Your task to perform on an android device: Do I have any events today? Image 0: 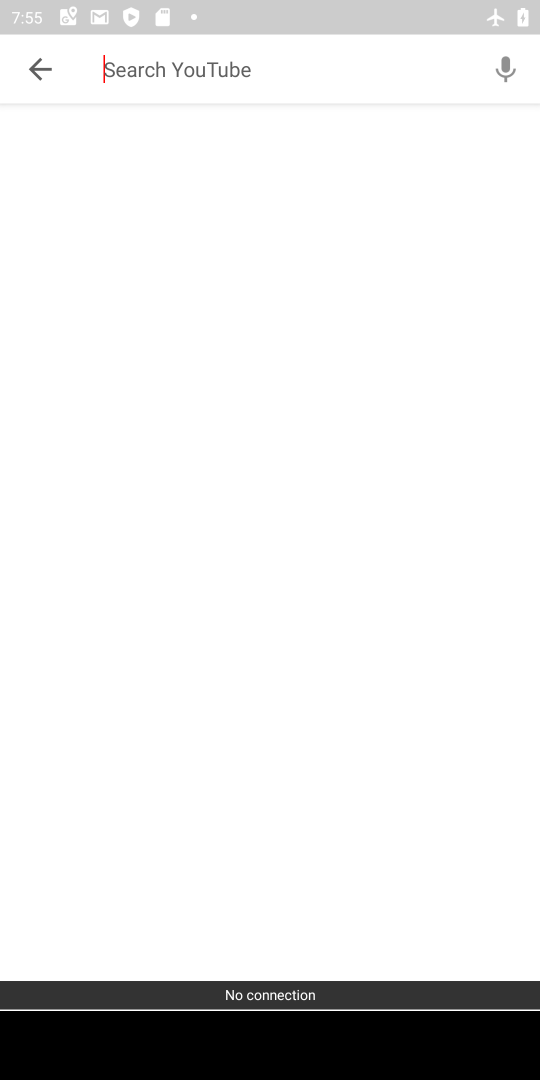
Step 0: press home button
Your task to perform on an android device: Do I have any events today? Image 1: 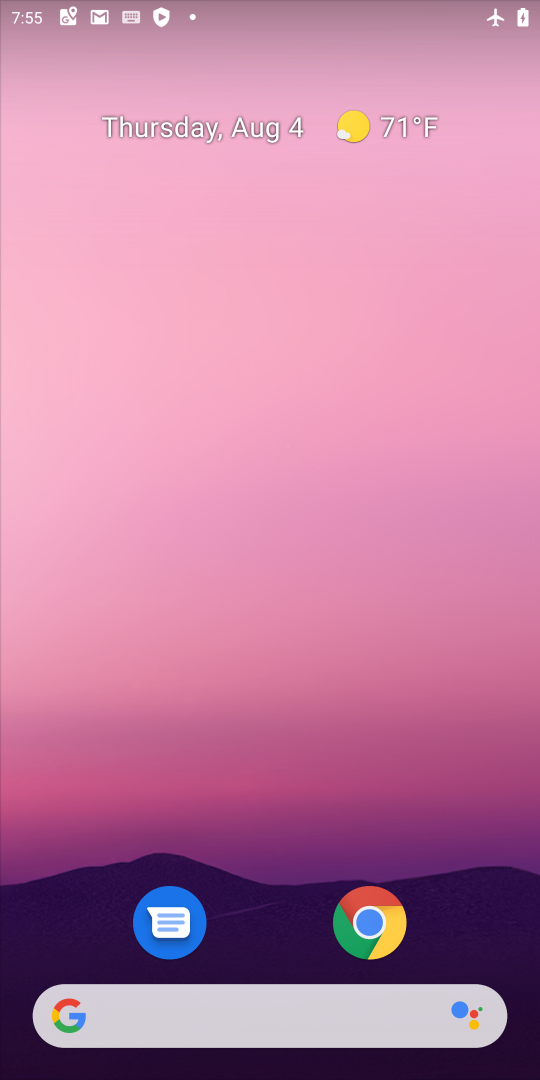
Step 1: drag from (485, 917) to (429, 34)
Your task to perform on an android device: Do I have any events today? Image 2: 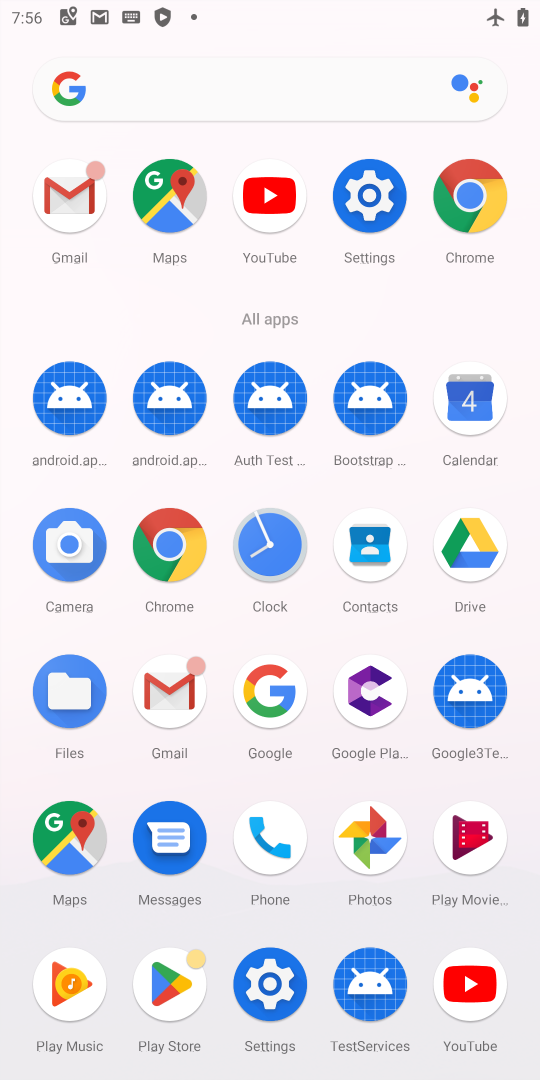
Step 2: click (472, 410)
Your task to perform on an android device: Do I have any events today? Image 3: 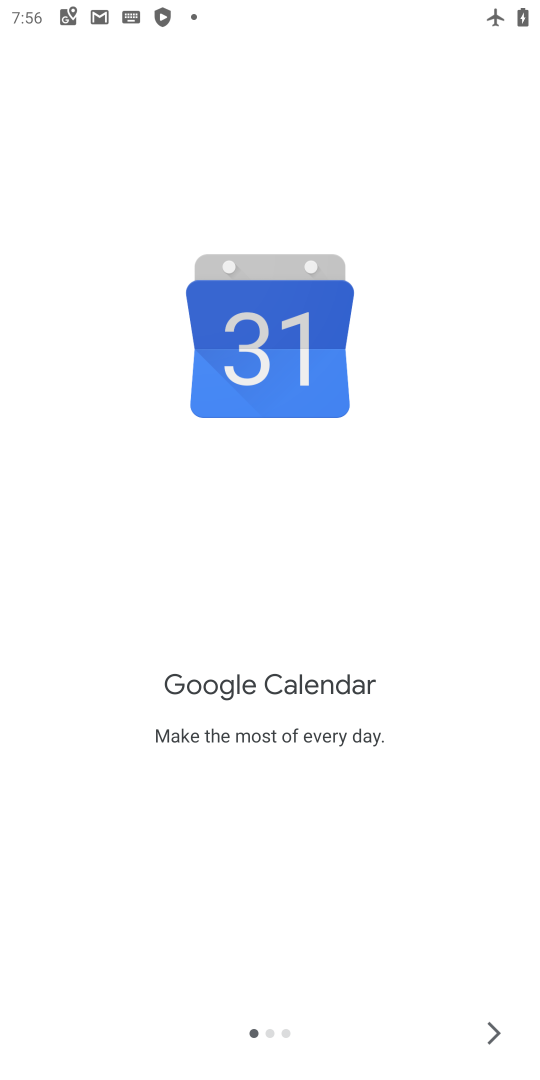
Step 3: click (493, 1020)
Your task to perform on an android device: Do I have any events today? Image 4: 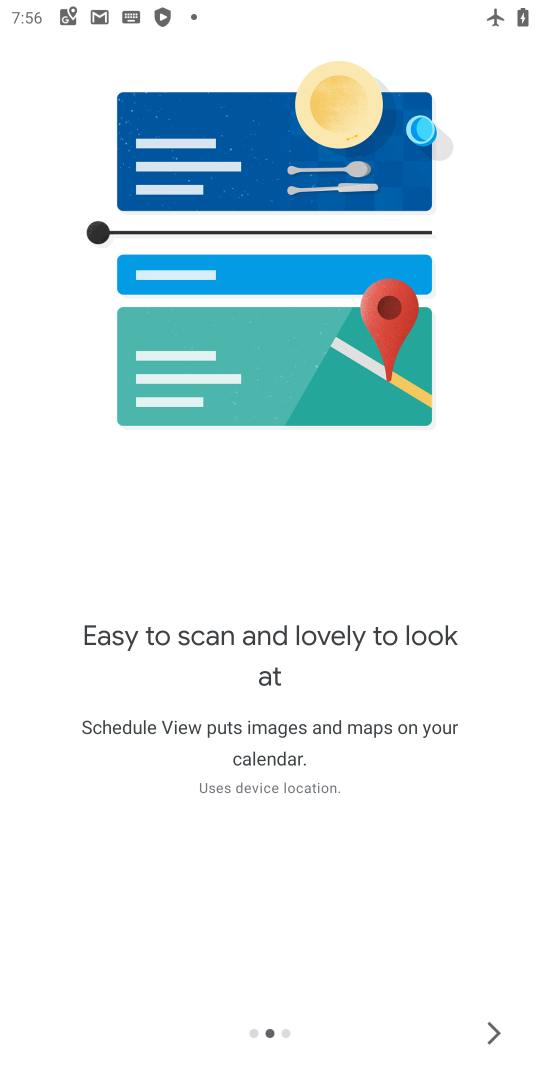
Step 4: click (493, 1020)
Your task to perform on an android device: Do I have any events today? Image 5: 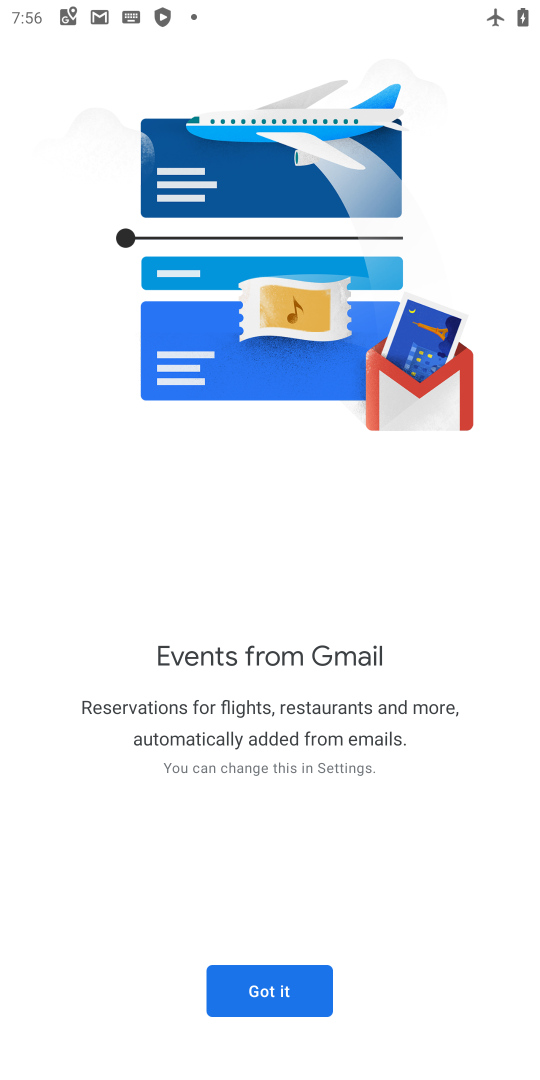
Step 5: click (290, 983)
Your task to perform on an android device: Do I have any events today? Image 6: 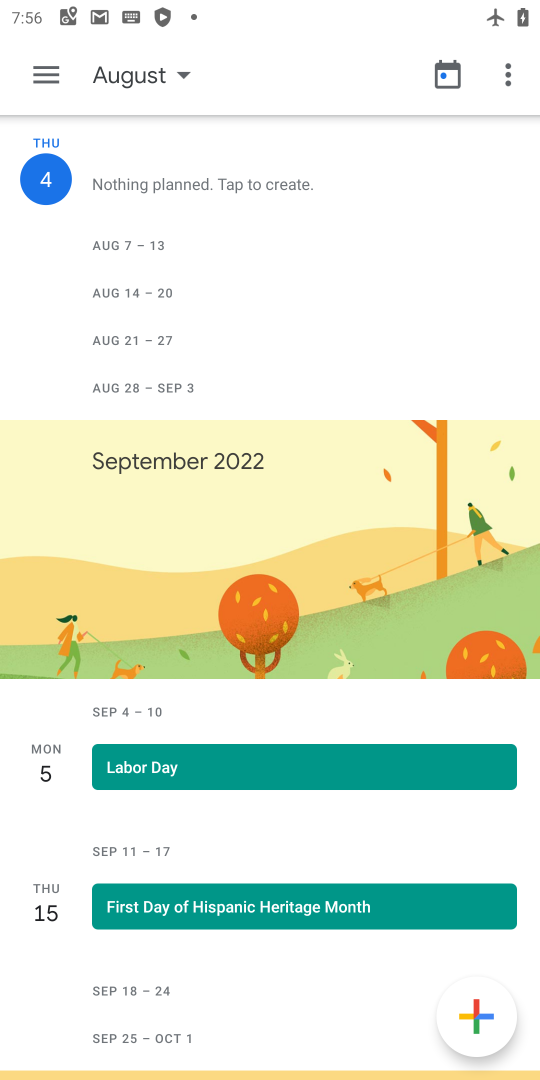
Step 6: drag from (427, 859) to (387, 384)
Your task to perform on an android device: Do I have any events today? Image 7: 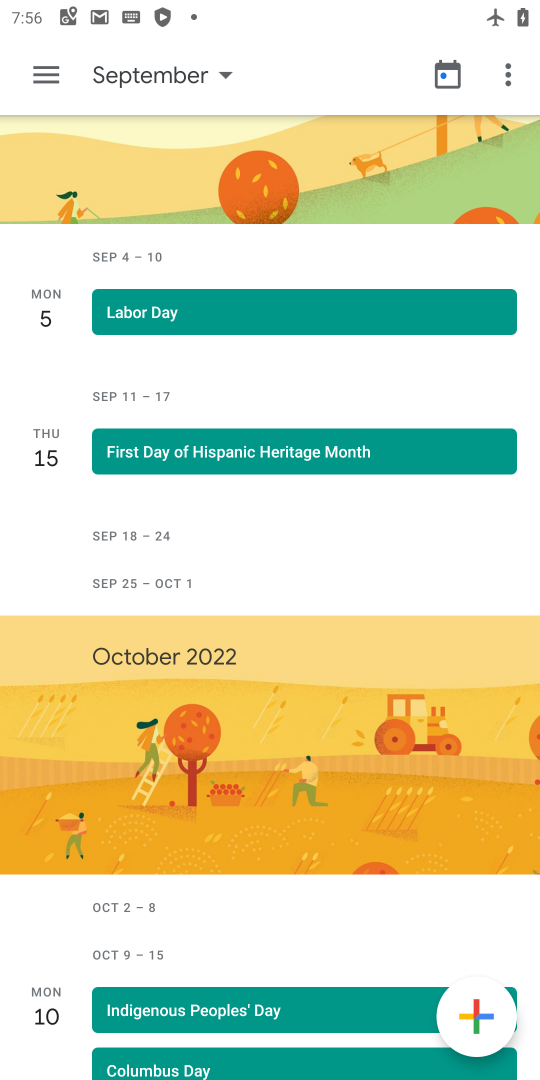
Step 7: drag from (389, 869) to (372, 675)
Your task to perform on an android device: Do I have any events today? Image 8: 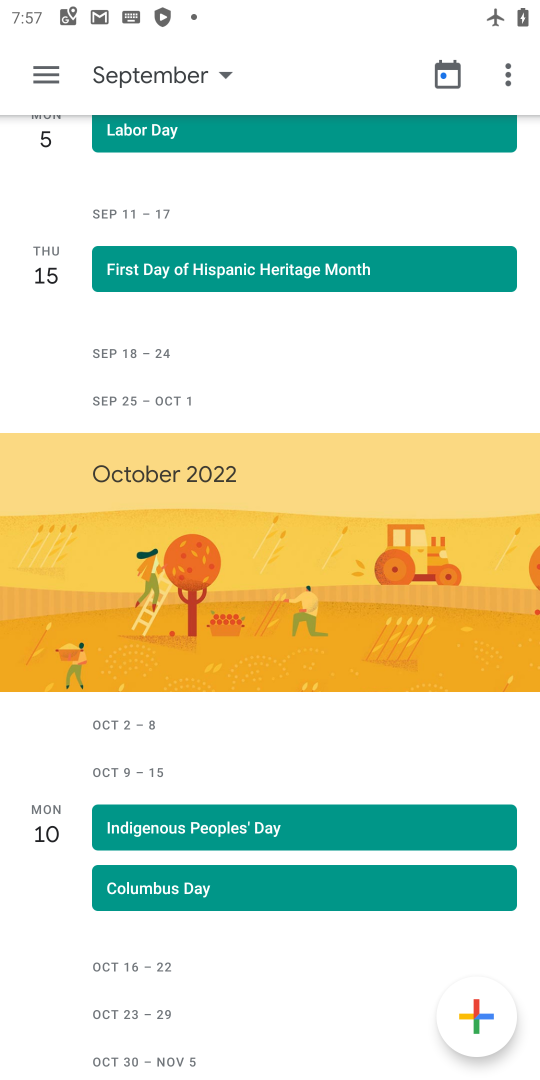
Step 8: click (56, 83)
Your task to perform on an android device: Do I have any events today? Image 9: 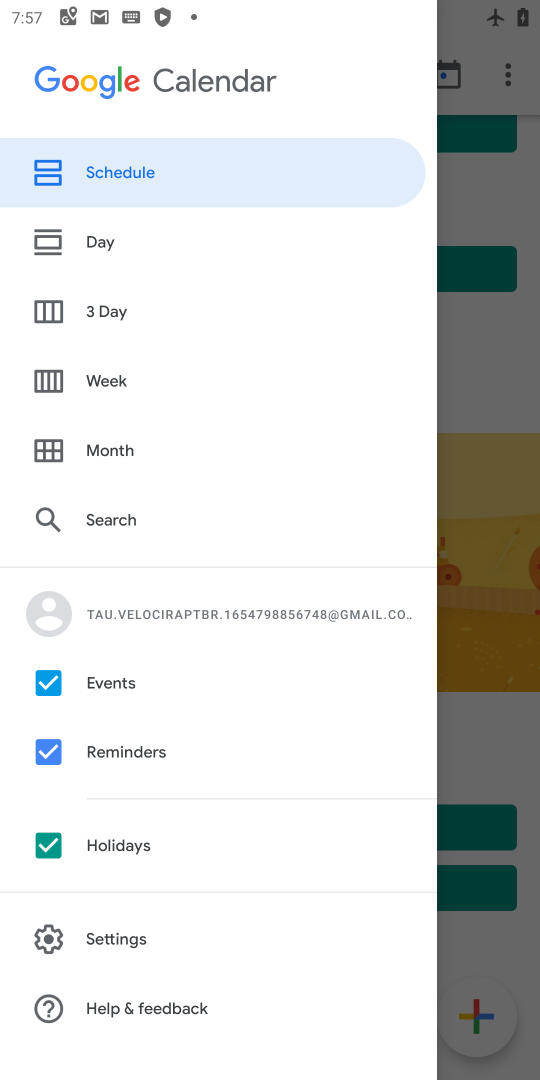
Step 9: click (143, 234)
Your task to perform on an android device: Do I have any events today? Image 10: 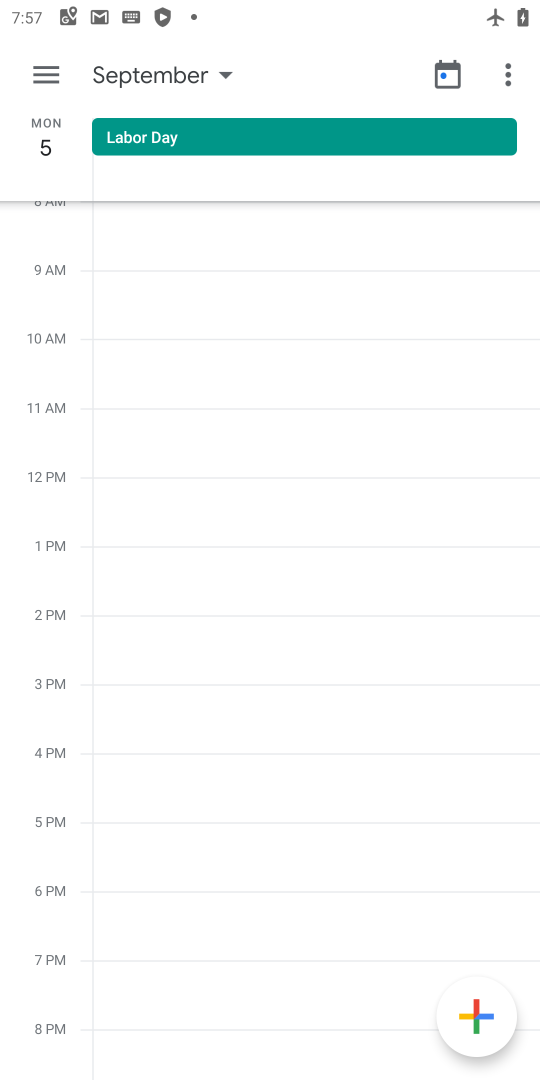
Step 10: click (203, 65)
Your task to perform on an android device: Do I have any events today? Image 11: 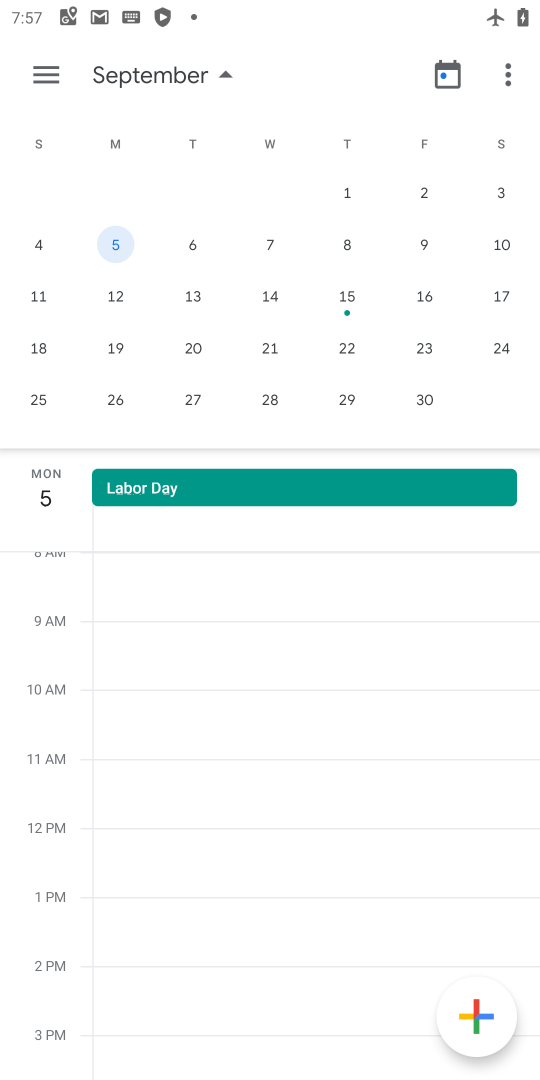
Step 11: drag from (137, 254) to (505, 274)
Your task to perform on an android device: Do I have any events today? Image 12: 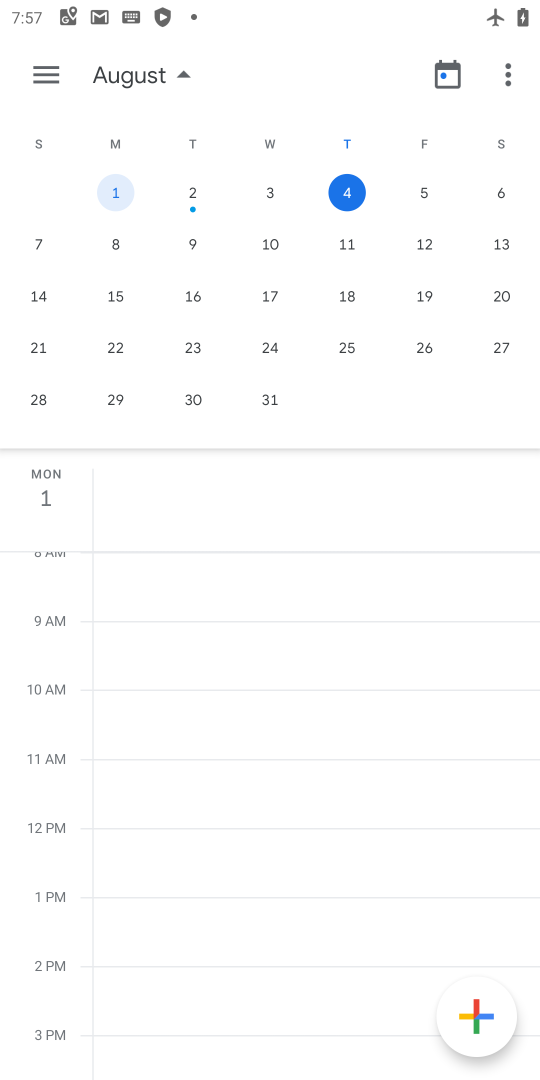
Step 12: click (352, 187)
Your task to perform on an android device: Do I have any events today? Image 13: 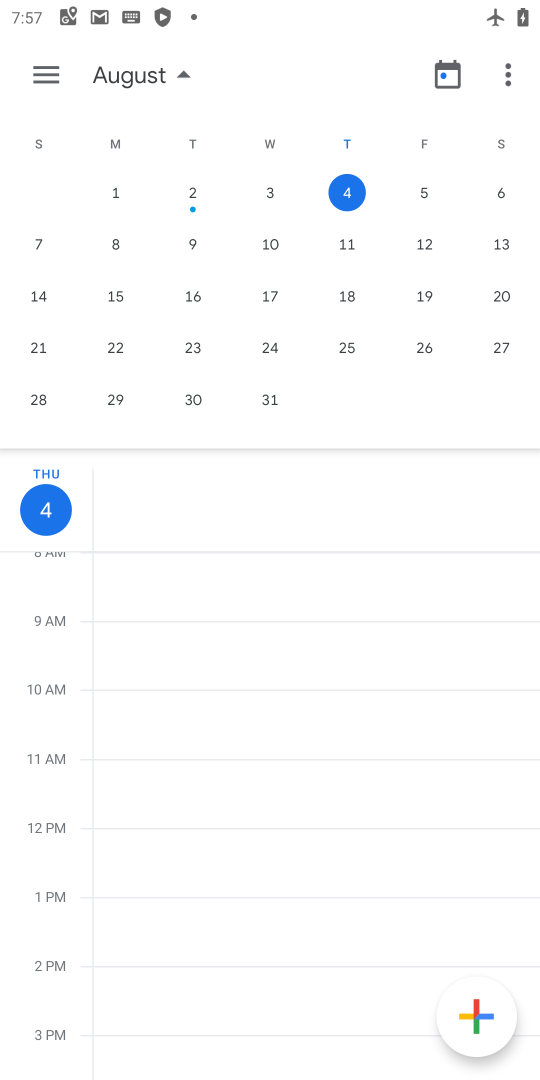
Step 13: task complete